Your task to perform on an android device: Go to Maps Image 0: 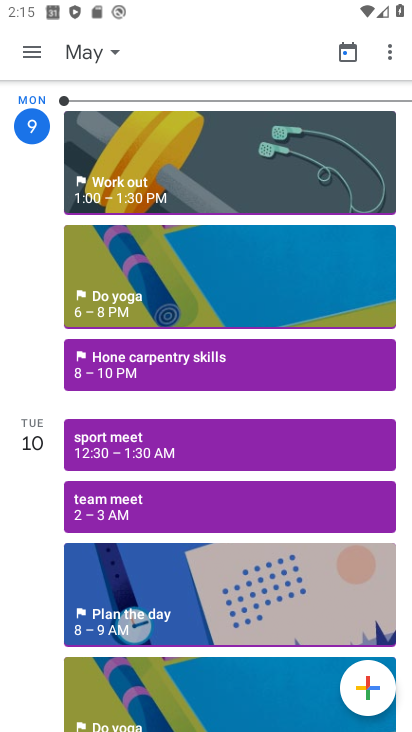
Step 0: press home button
Your task to perform on an android device: Go to Maps Image 1: 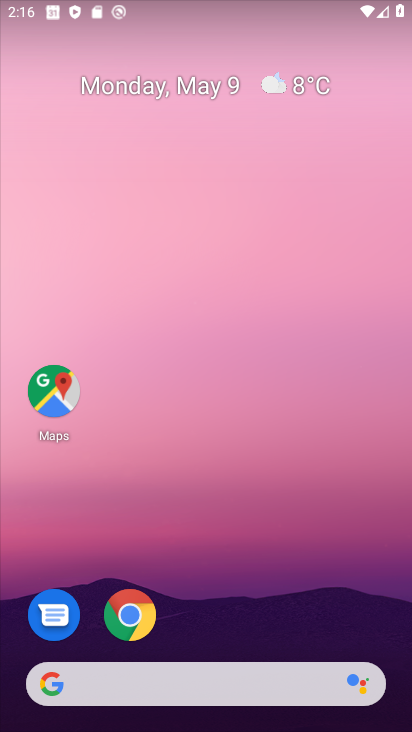
Step 1: drag from (307, 608) to (233, 205)
Your task to perform on an android device: Go to Maps Image 2: 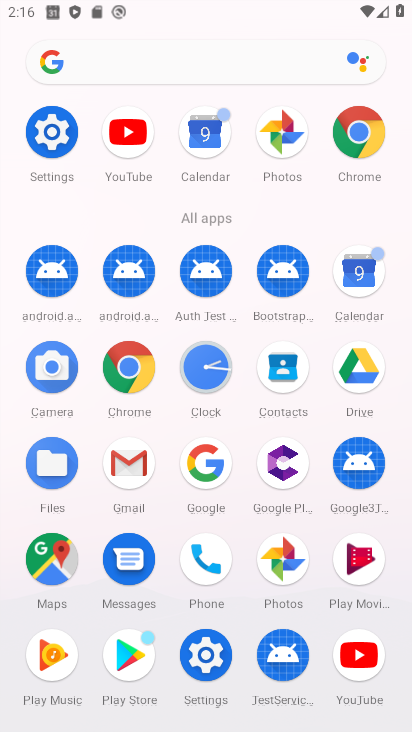
Step 2: click (233, 205)
Your task to perform on an android device: Go to Maps Image 3: 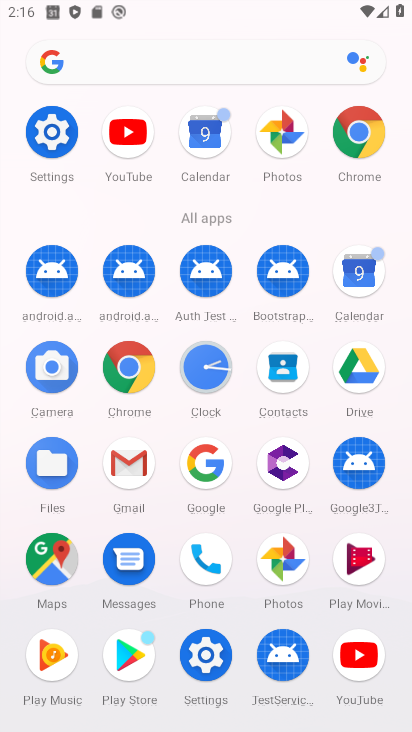
Step 3: click (54, 567)
Your task to perform on an android device: Go to Maps Image 4: 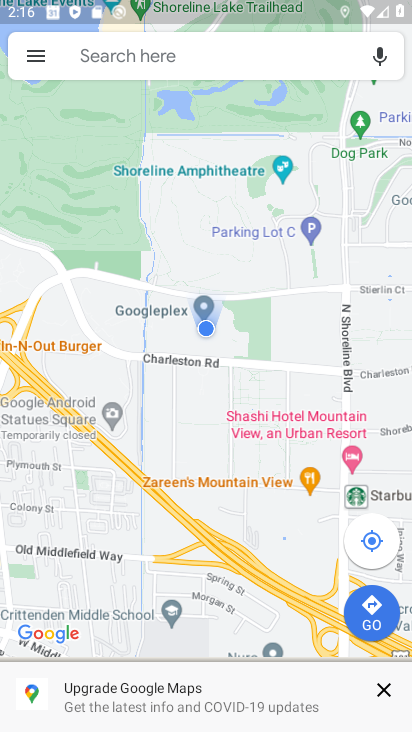
Step 4: task complete